Your task to perform on an android device: change notifications settings Image 0: 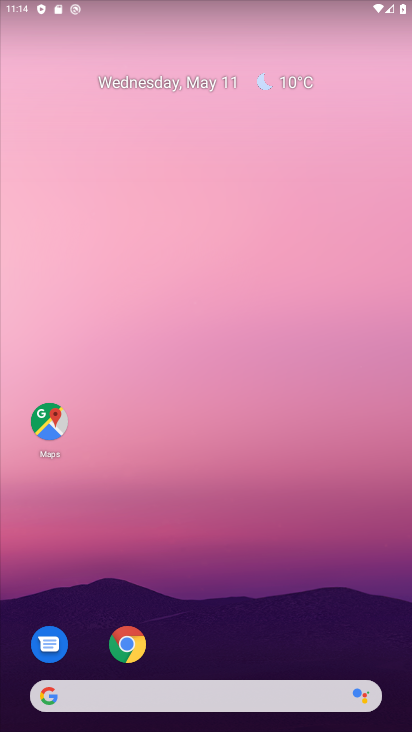
Step 0: drag from (218, 610) to (207, 74)
Your task to perform on an android device: change notifications settings Image 1: 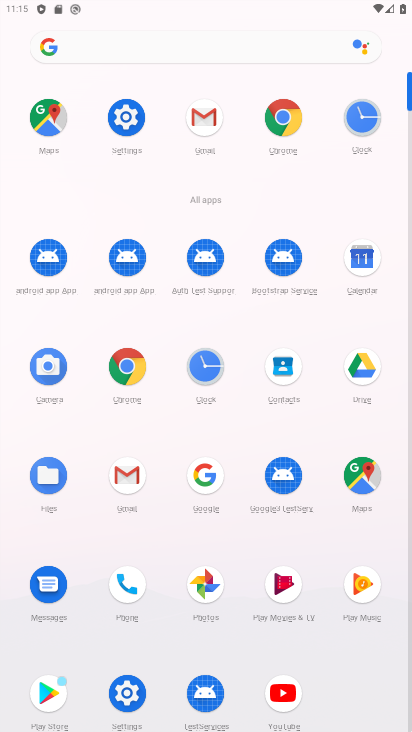
Step 1: click (114, 117)
Your task to perform on an android device: change notifications settings Image 2: 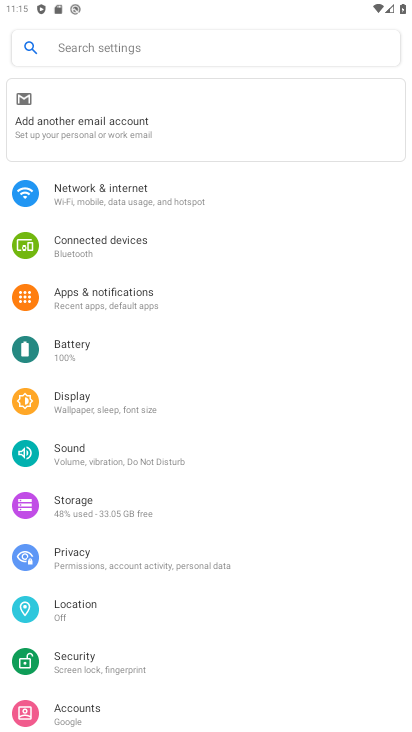
Step 2: click (106, 303)
Your task to perform on an android device: change notifications settings Image 3: 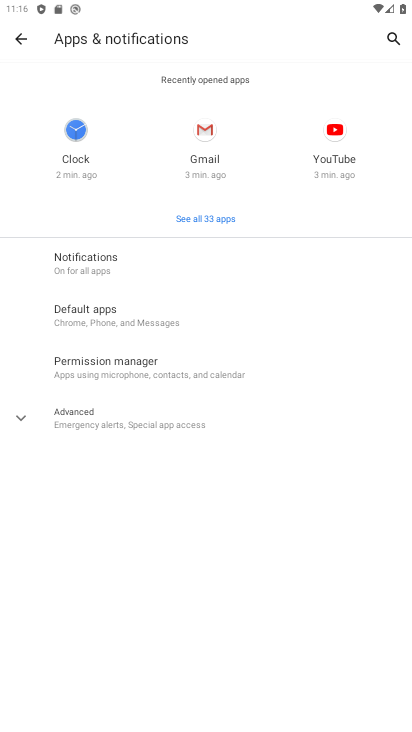
Step 3: click (108, 274)
Your task to perform on an android device: change notifications settings Image 4: 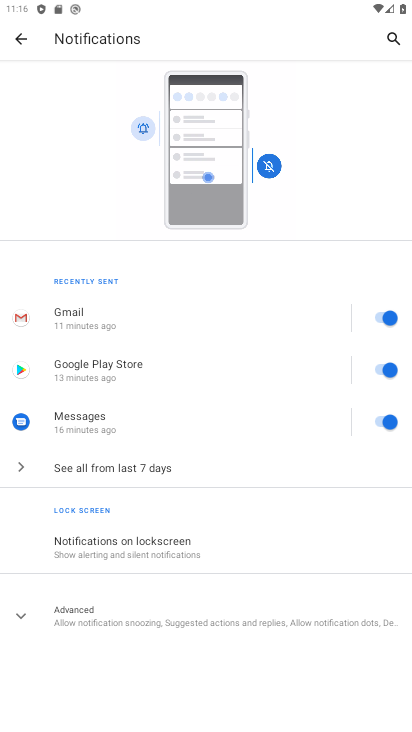
Step 4: click (381, 314)
Your task to perform on an android device: change notifications settings Image 5: 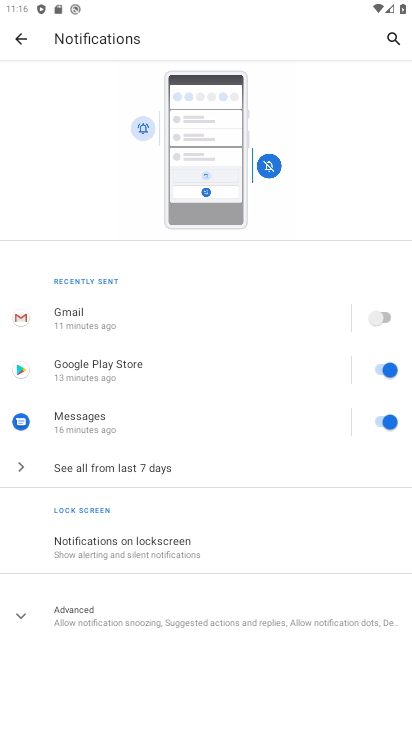
Step 5: task complete